Your task to perform on an android device: search for starred emails in the gmail app Image 0: 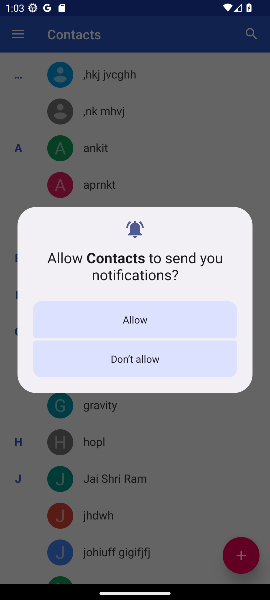
Step 0: press home button
Your task to perform on an android device: search for starred emails in the gmail app Image 1: 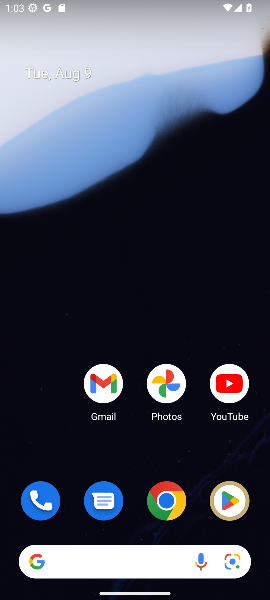
Step 1: click (106, 390)
Your task to perform on an android device: search for starred emails in the gmail app Image 2: 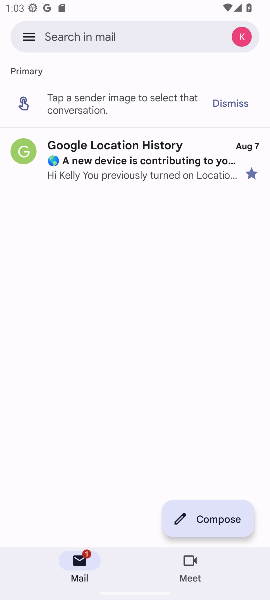
Step 2: click (106, 390)
Your task to perform on an android device: search for starred emails in the gmail app Image 3: 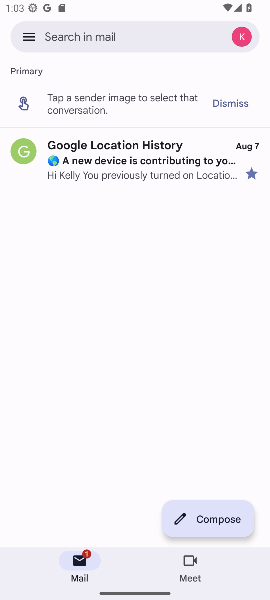
Step 3: click (25, 32)
Your task to perform on an android device: search for starred emails in the gmail app Image 4: 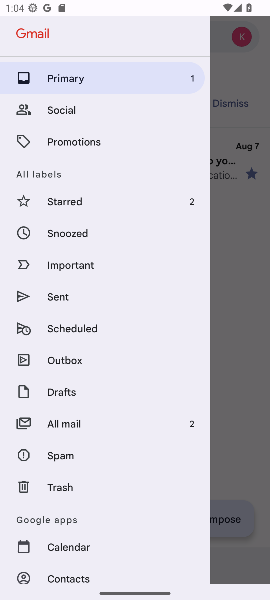
Step 4: click (79, 195)
Your task to perform on an android device: search for starred emails in the gmail app Image 5: 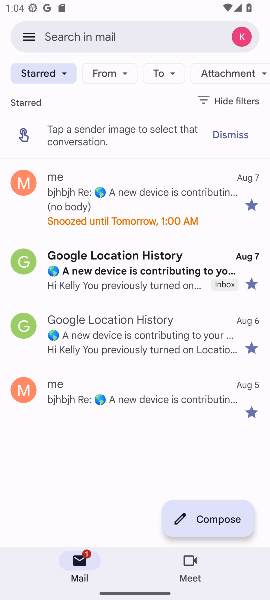
Step 5: task complete